Your task to perform on an android device: Show the shopping cart on bestbuy. Add "corsair k70" to the cart on bestbuy, then select checkout. Image 0: 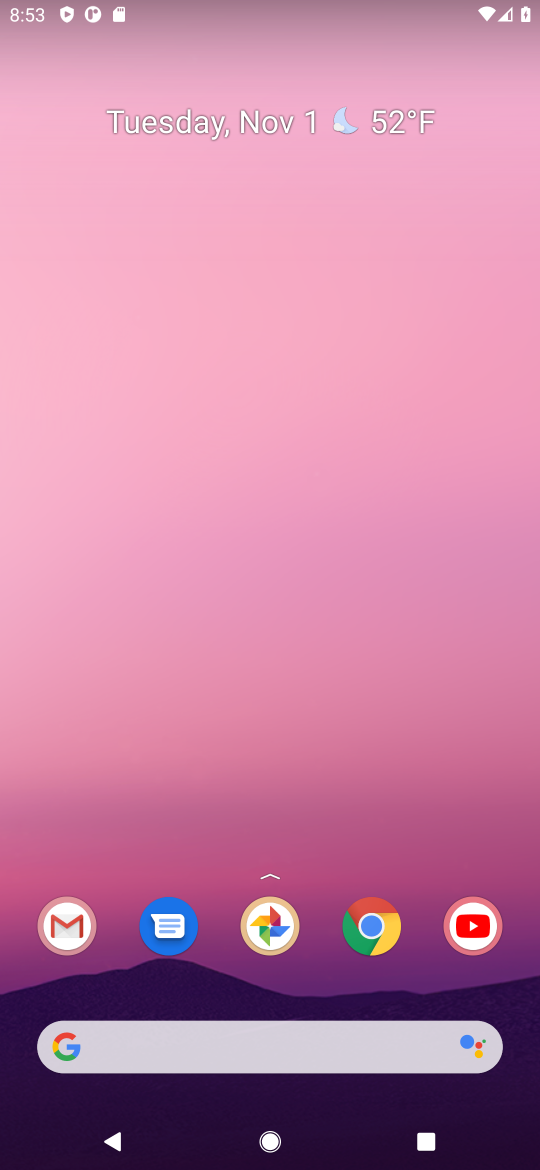
Step 0: press home button
Your task to perform on an android device: Show the shopping cart on bestbuy. Add "corsair k70" to the cart on bestbuy, then select checkout. Image 1: 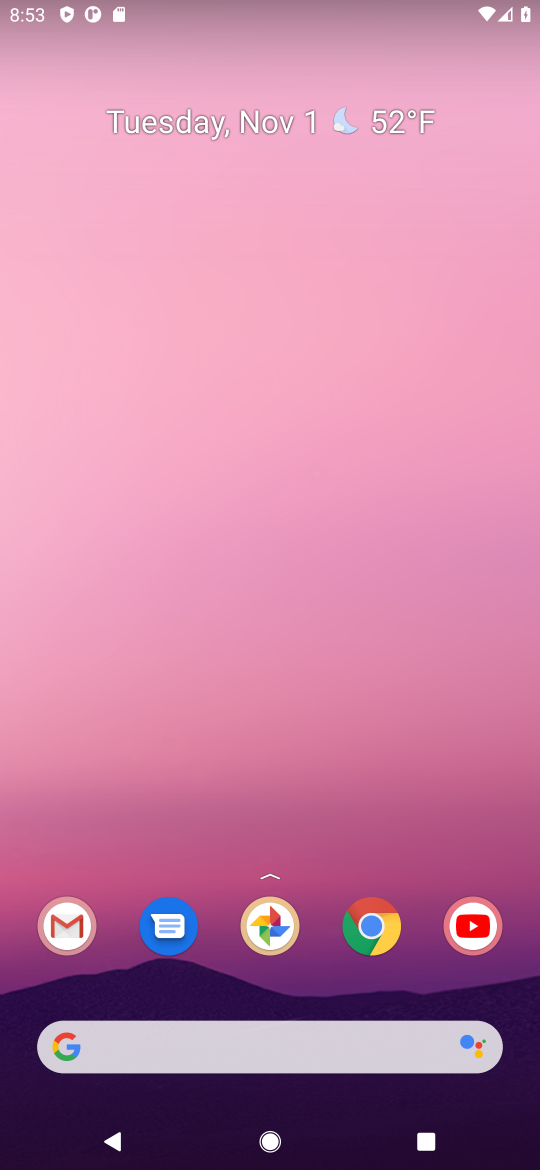
Step 1: press home button
Your task to perform on an android device: Show the shopping cart on bestbuy. Add "corsair k70" to the cart on bestbuy, then select checkout. Image 2: 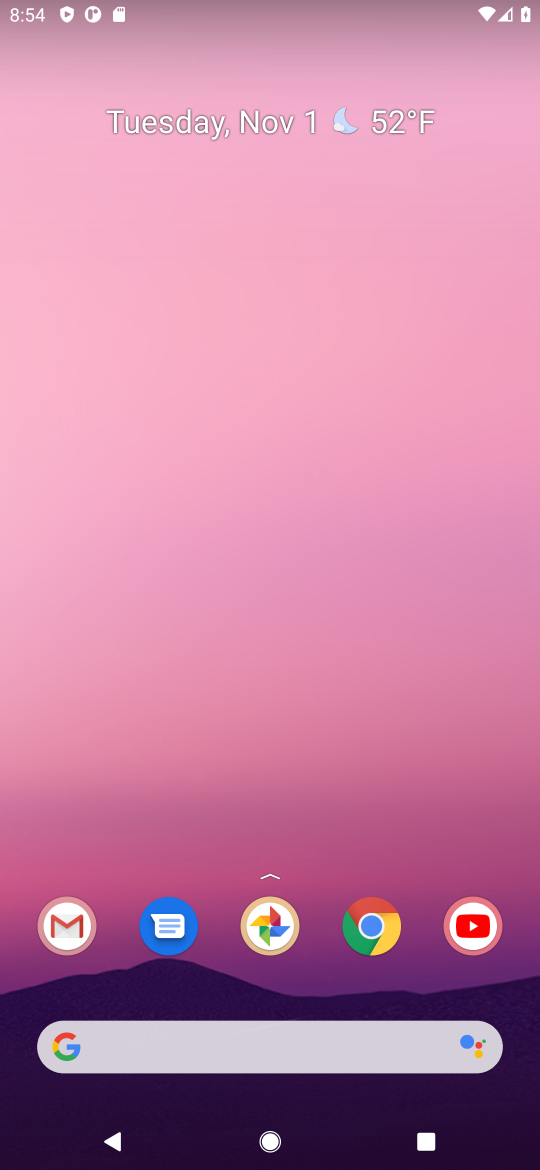
Step 2: click (373, 930)
Your task to perform on an android device: Show the shopping cart on bestbuy. Add "corsair k70" to the cart on bestbuy, then select checkout. Image 3: 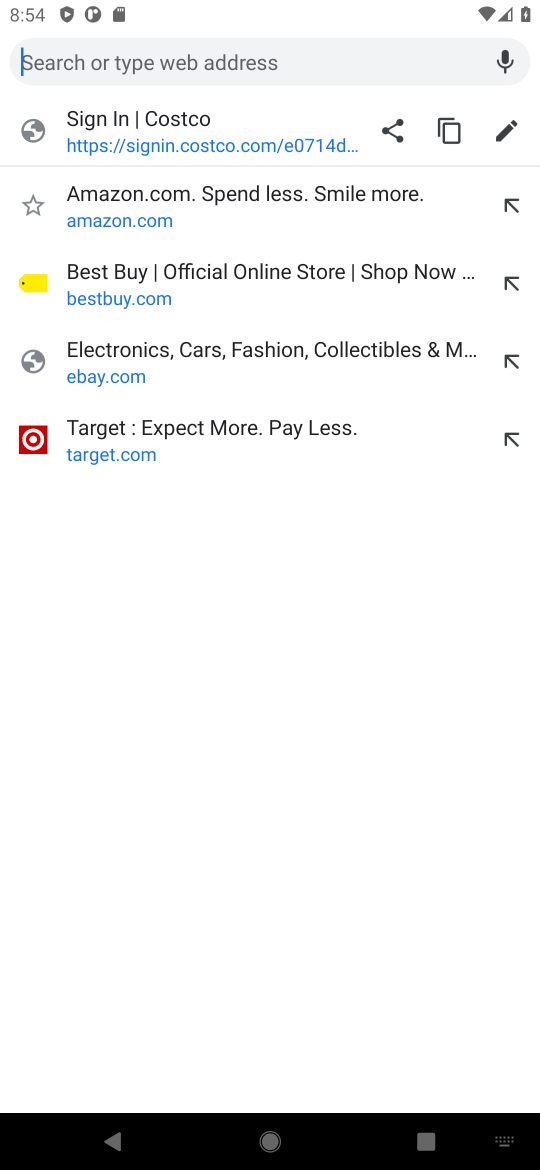
Step 3: type "bestbuy"
Your task to perform on an android device: Show the shopping cart on bestbuy. Add "corsair k70" to the cart on bestbuy, then select checkout. Image 4: 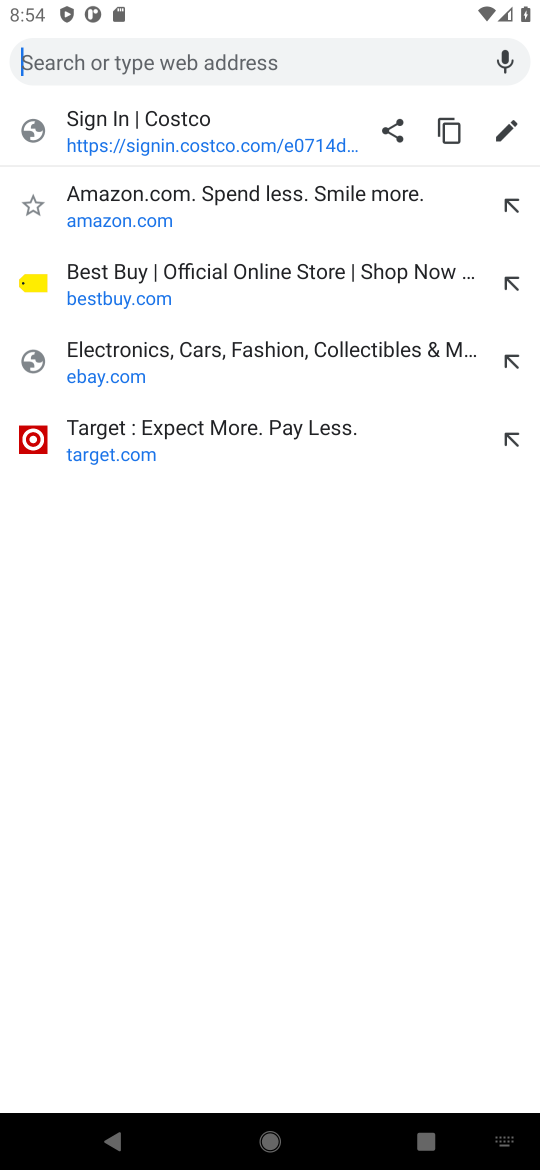
Step 4: click (172, 281)
Your task to perform on an android device: Show the shopping cart on bestbuy. Add "corsair k70" to the cart on bestbuy, then select checkout. Image 5: 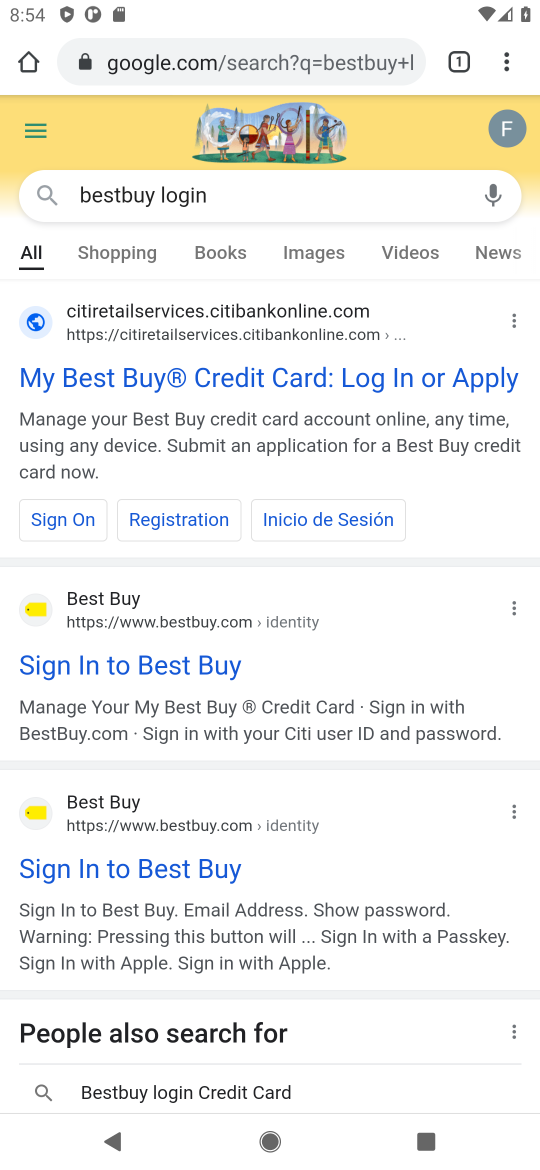
Step 5: drag from (177, 824) to (175, 50)
Your task to perform on an android device: Show the shopping cart on bestbuy. Add "corsair k70" to the cart on bestbuy, then select checkout. Image 6: 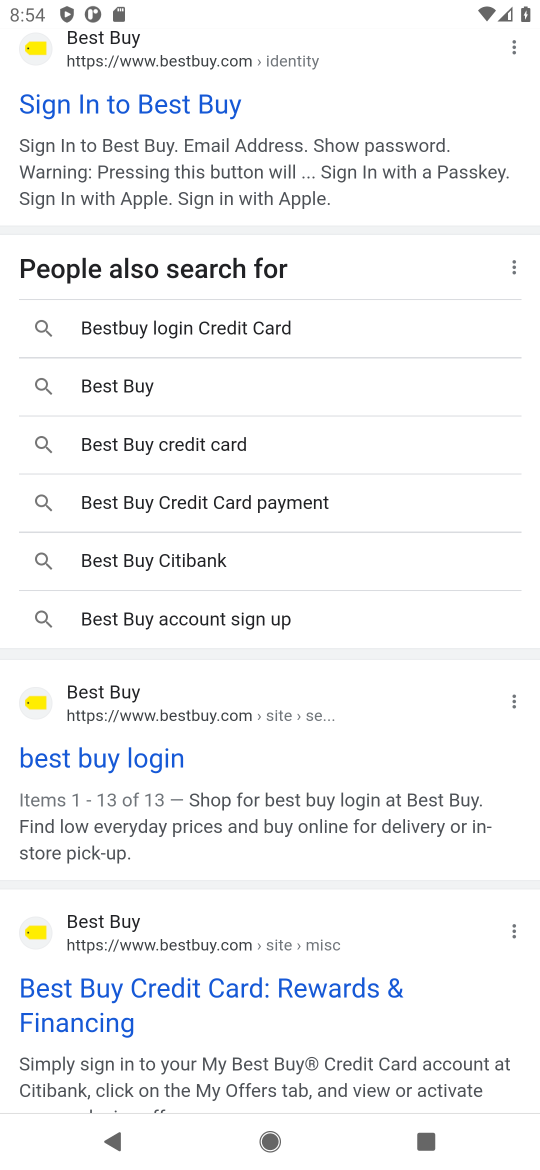
Step 6: click (97, 764)
Your task to perform on an android device: Show the shopping cart on bestbuy. Add "corsair k70" to the cart on bestbuy, then select checkout. Image 7: 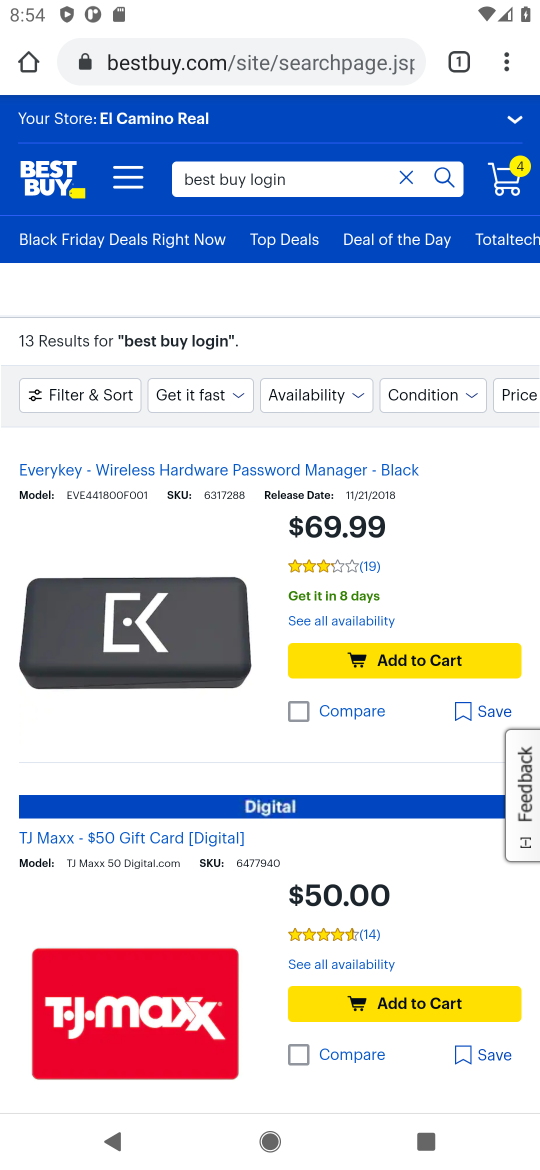
Step 7: click (217, 178)
Your task to perform on an android device: Show the shopping cart on bestbuy. Add "corsair k70" to the cart on bestbuy, then select checkout. Image 8: 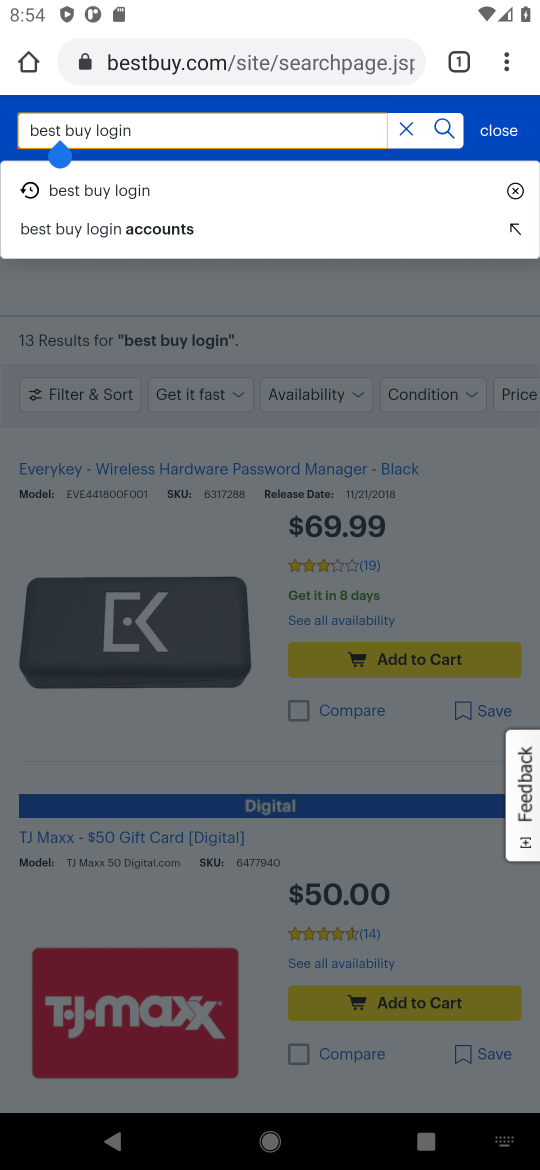
Step 8: click (406, 132)
Your task to perform on an android device: Show the shopping cart on bestbuy. Add "corsair k70" to the cart on bestbuy, then select checkout. Image 9: 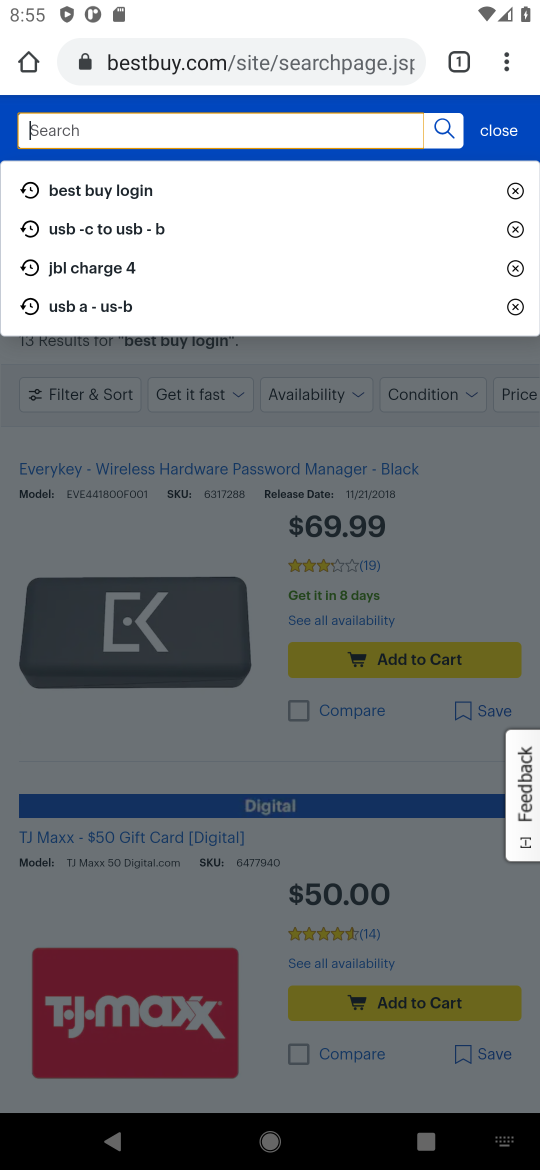
Step 9: type "corsair k70"
Your task to perform on an android device: Show the shopping cart on bestbuy. Add "corsair k70" to the cart on bestbuy, then select checkout. Image 10: 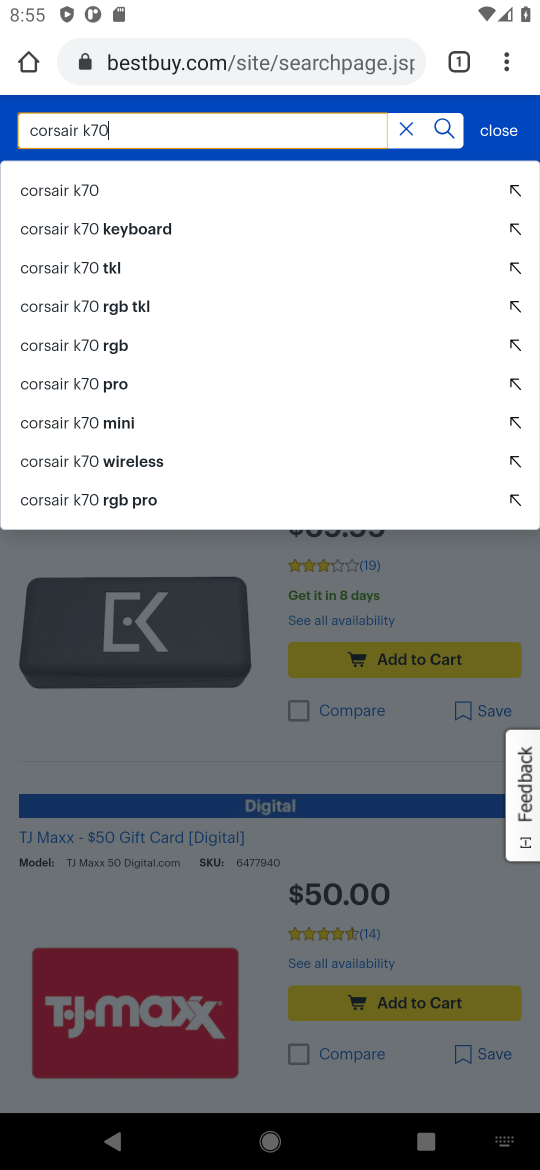
Step 10: click (38, 194)
Your task to perform on an android device: Show the shopping cart on bestbuy. Add "corsair k70" to the cart on bestbuy, then select checkout. Image 11: 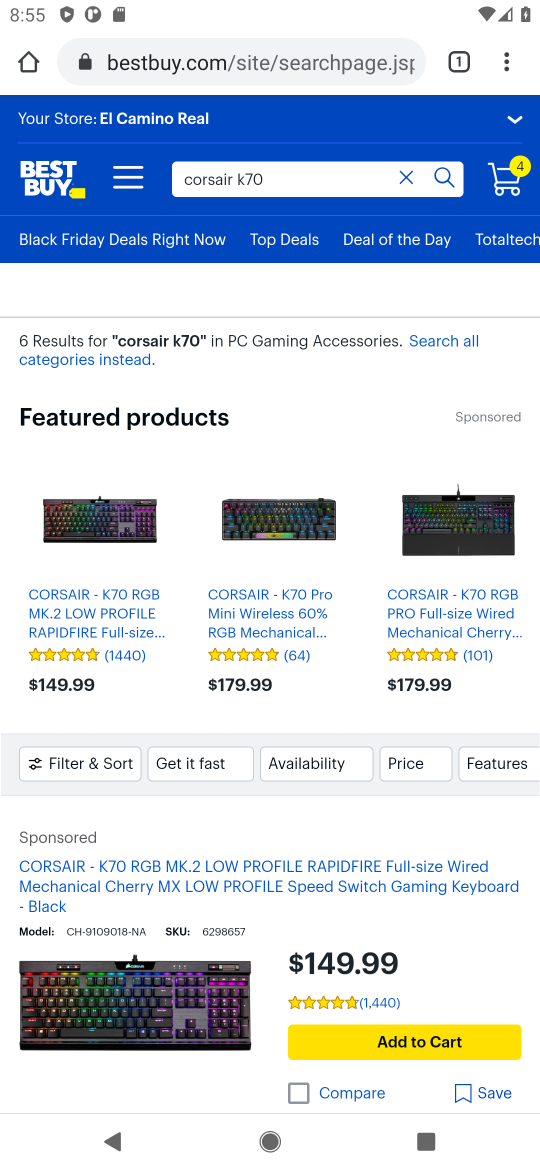
Step 11: drag from (99, 1030) to (166, 523)
Your task to perform on an android device: Show the shopping cart on bestbuy. Add "corsair k70" to the cart on bestbuy, then select checkout. Image 12: 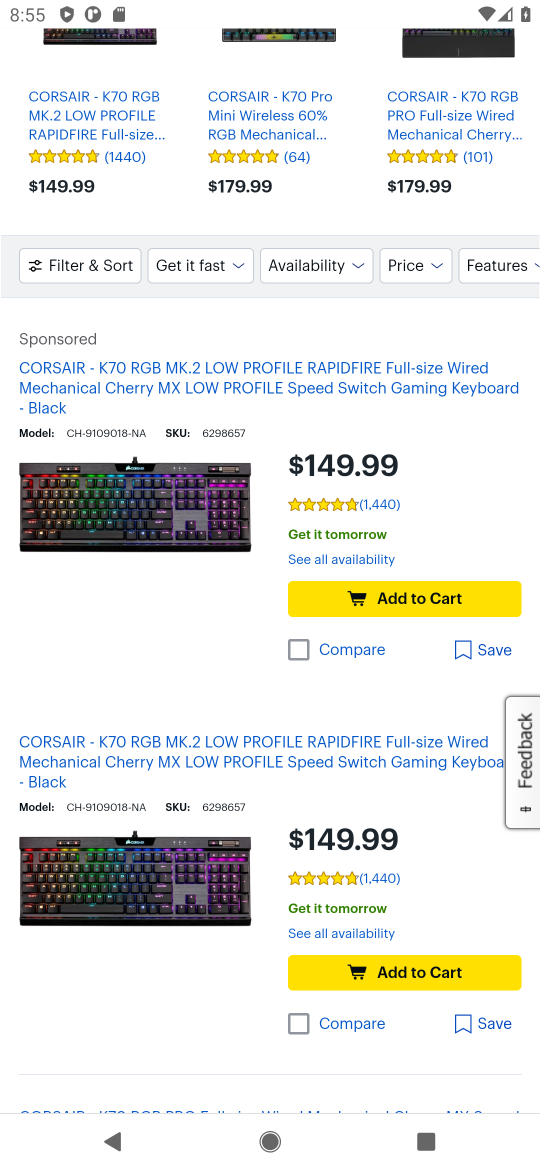
Step 12: drag from (163, 740) to (211, 485)
Your task to perform on an android device: Show the shopping cart on bestbuy. Add "corsair k70" to the cart on bestbuy, then select checkout. Image 13: 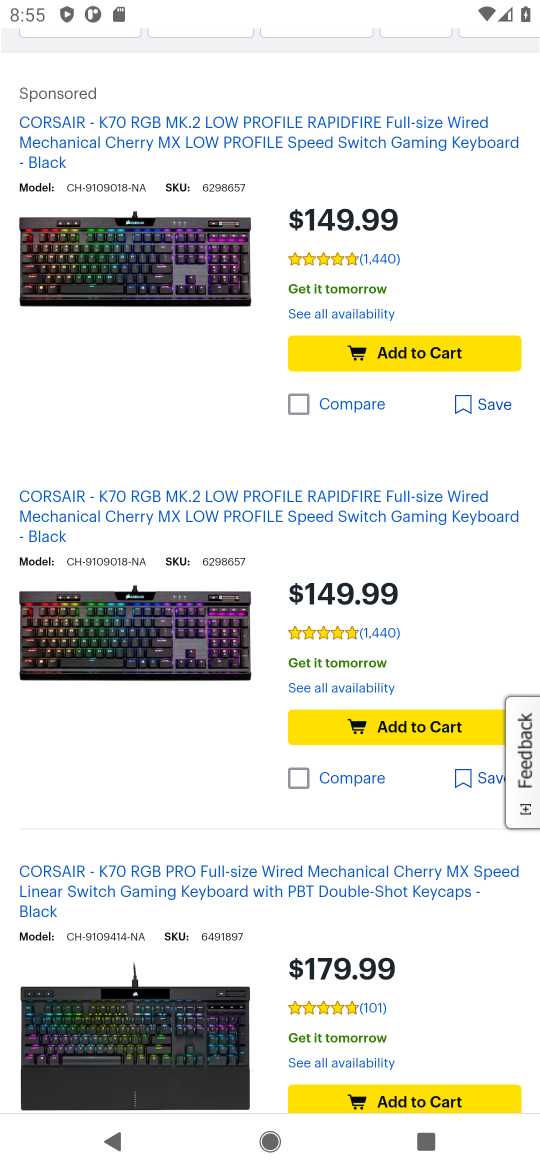
Step 13: click (143, 648)
Your task to perform on an android device: Show the shopping cart on bestbuy. Add "corsair k70" to the cart on bestbuy, then select checkout. Image 14: 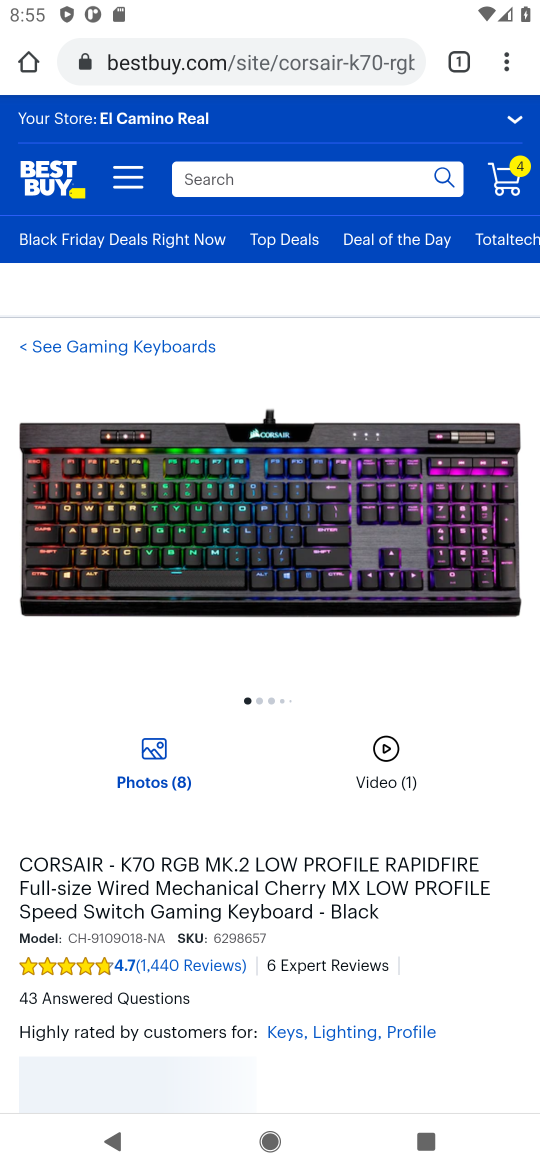
Step 14: drag from (254, 750) to (287, 136)
Your task to perform on an android device: Show the shopping cart on bestbuy. Add "corsair k70" to the cart on bestbuy, then select checkout. Image 15: 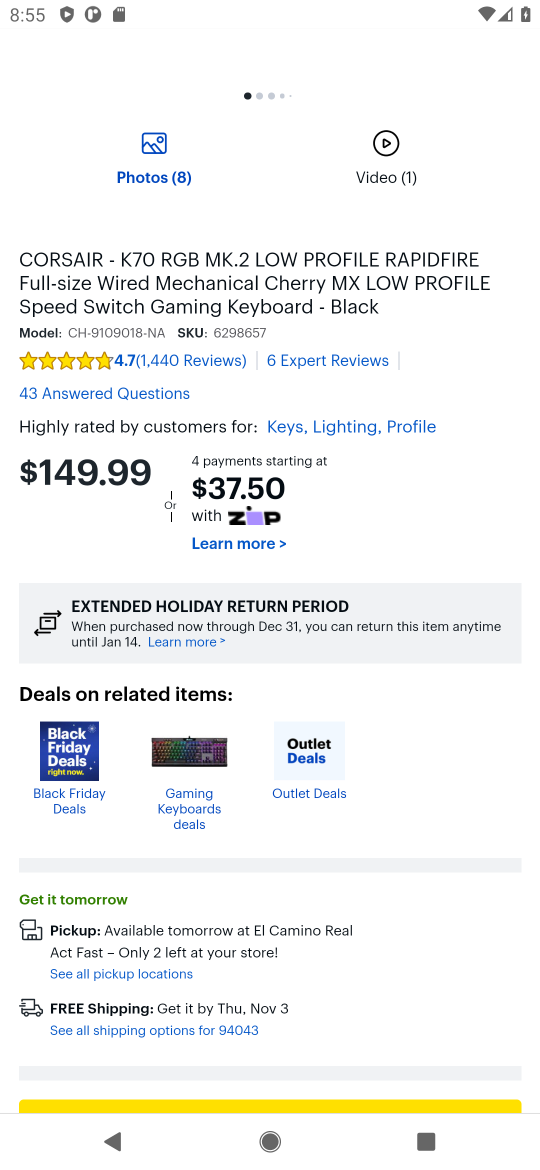
Step 15: drag from (259, 902) to (189, 234)
Your task to perform on an android device: Show the shopping cart on bestbuy. Add "corsair k70" to the cart on bestbuy, then select checkout. Image 16: 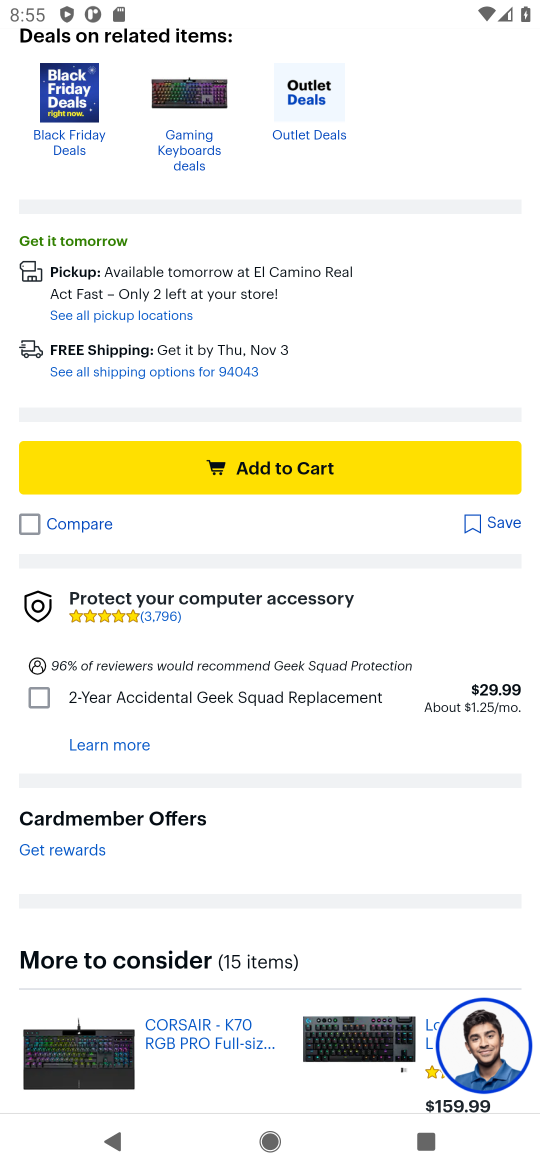
Step 16: click (259, 470)
Your task to perform on an android device: Show the shopping cart on bestbuy. Add "corsair k70" to the cart on bestbuy, then select checkout. Image 17: 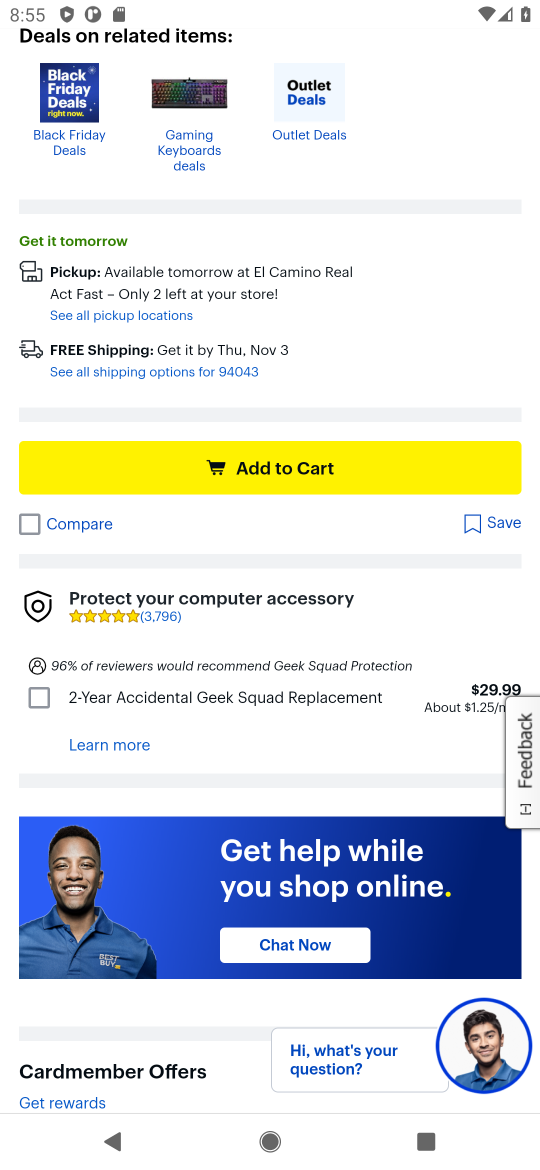
Step 17: drag from (327, 292) to (248, 914)
Your task to perform on an android device: Show the shopping cart on bestbuy. Add "corsair k70" to the cart on bestbuy, then select checkout. Image 18: 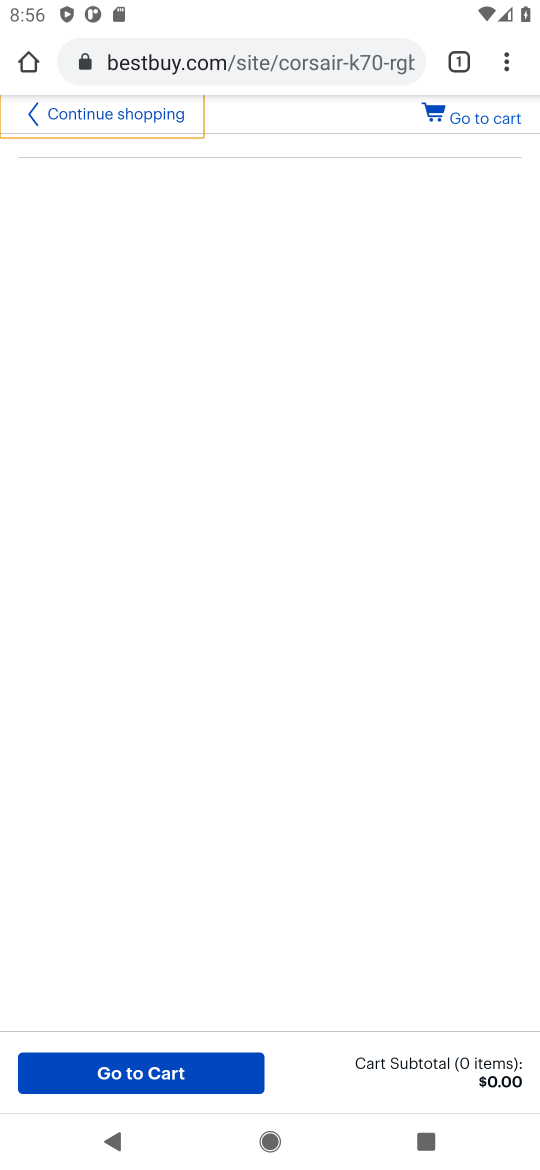
Step 18: click (500, 127)
Your task to perform on an android device: Show the shopping cart on bestbuy. Add "corsair k70" to the cart on bestbuy, then select checkout. Image 19: 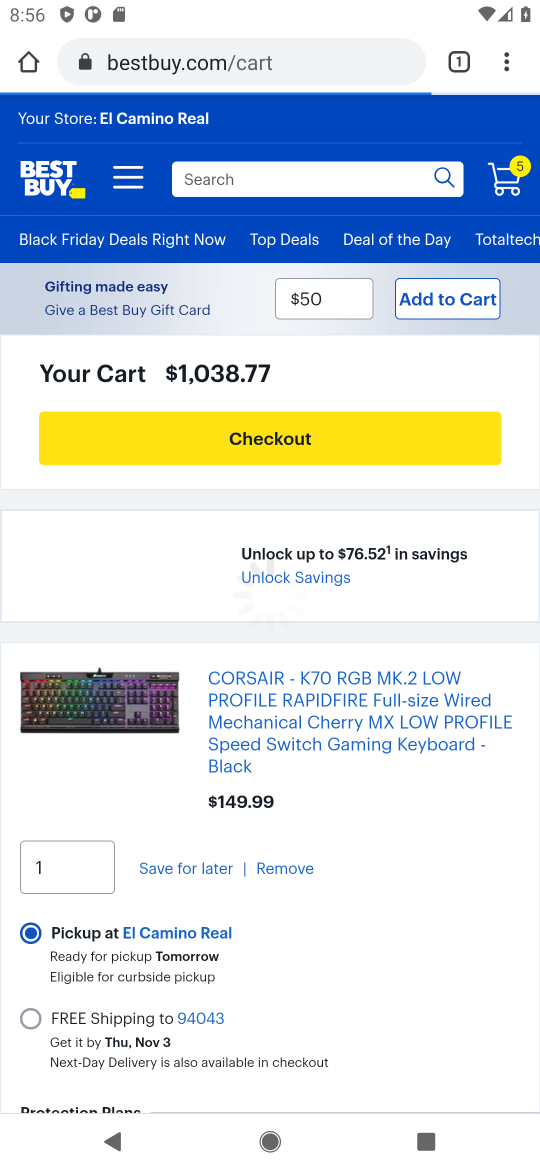
Step 19: click (523, 168)
Your task to perform on an android device: Show the shopping cart on bestbuy. Add "corsair k70" to the cart on bestbuy, then select checkout. Image 20: 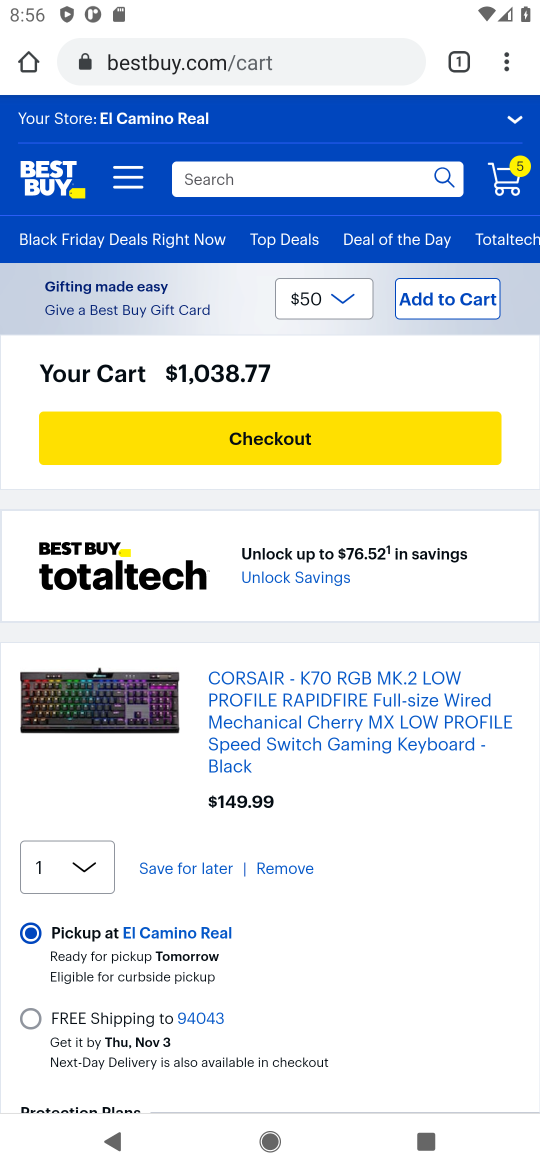
Step 20: click (286, 447)
Your task to perform on an android device: Show the shopping cart on bestbuy. Add "corsair k70" to the cart on bestbuy, then select checkout. Image 21: 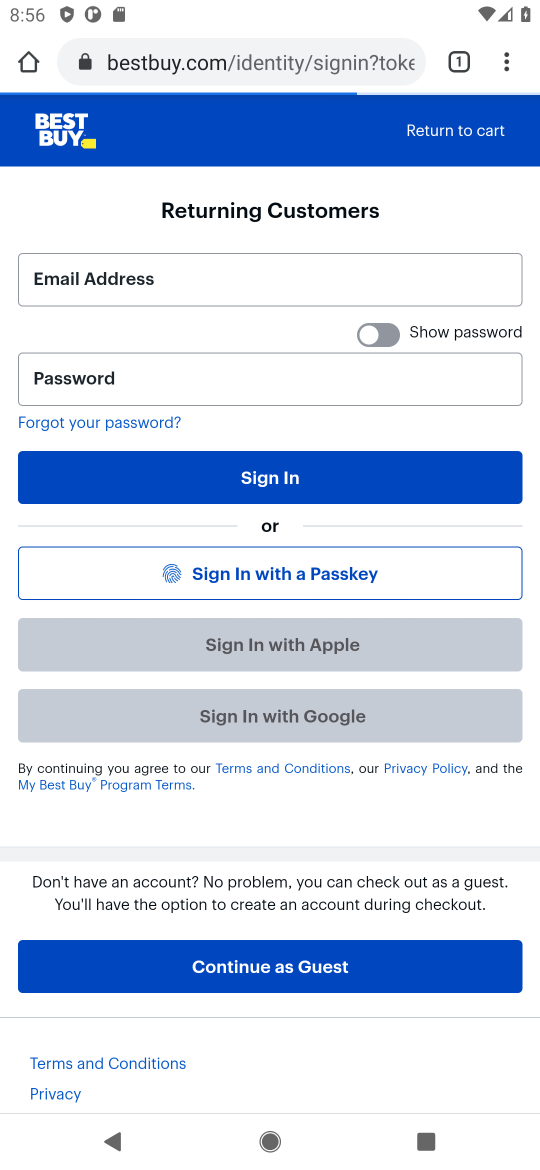
Step 21: task complete